Your task to perform on an android device: Set the phone to "Do not disturb". Image 0: 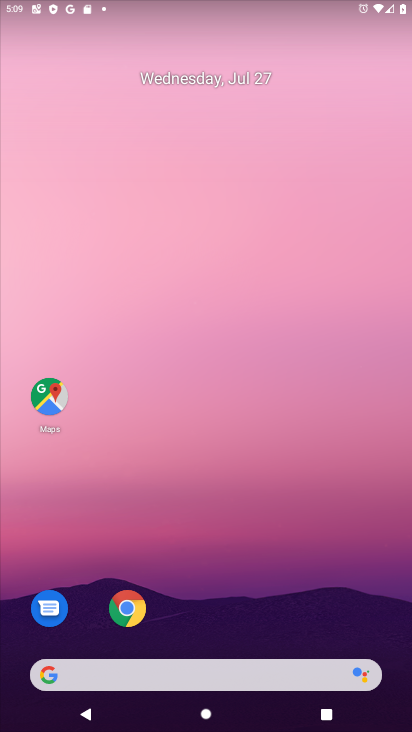
Step 0: click (247, 130)
Your task to perform on an android device: Set the phone to "Do not disturb". Image 1: 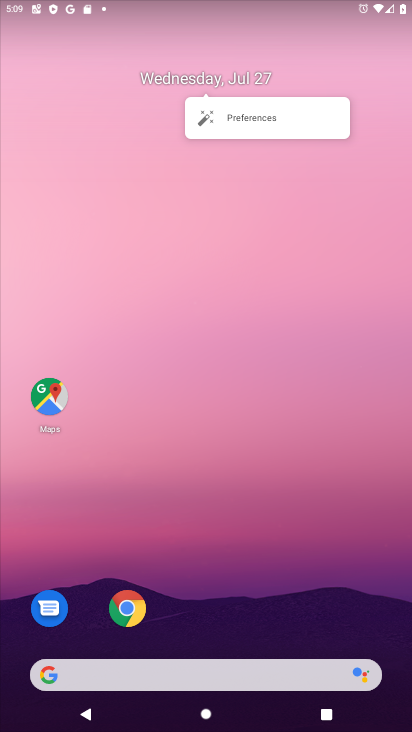
Step 1: click (178, 205)
Your task to perform on an android device: Set the phone to "Do not disturb". Image 2: 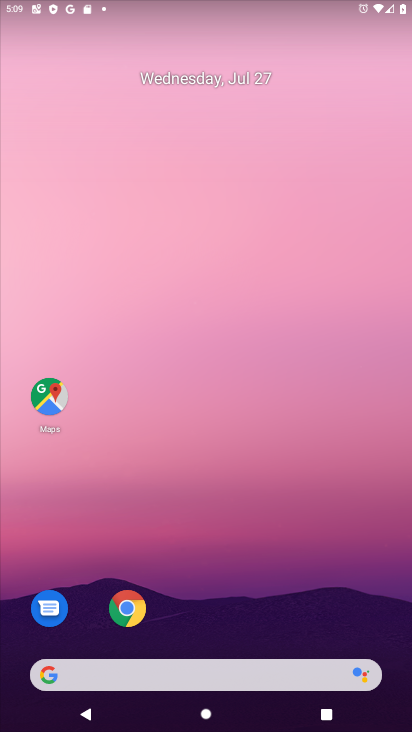
Step 2: task complete